Your task to perform on an android device: Open privacy settings Image 0: 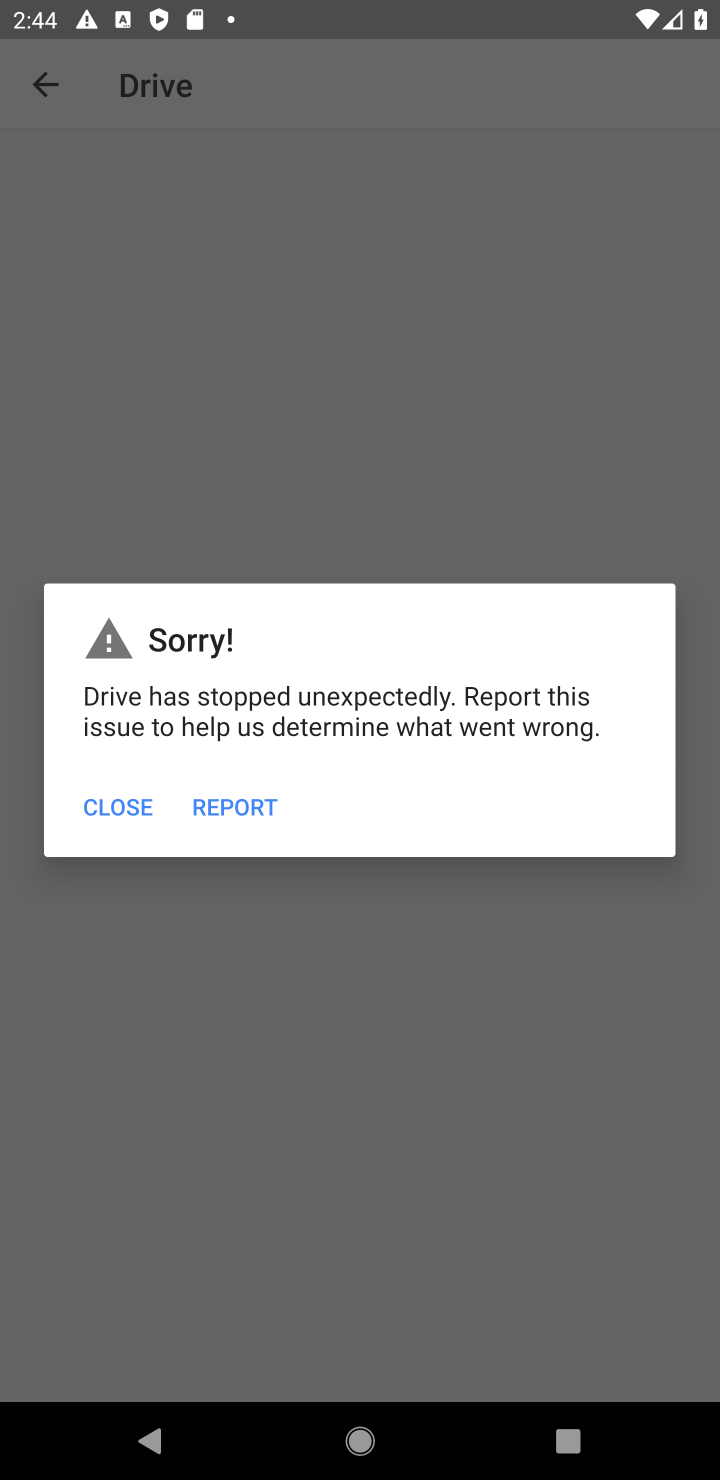
Step 0: press home button
Your task to perform on an android device: Open privacy settings Image 1: 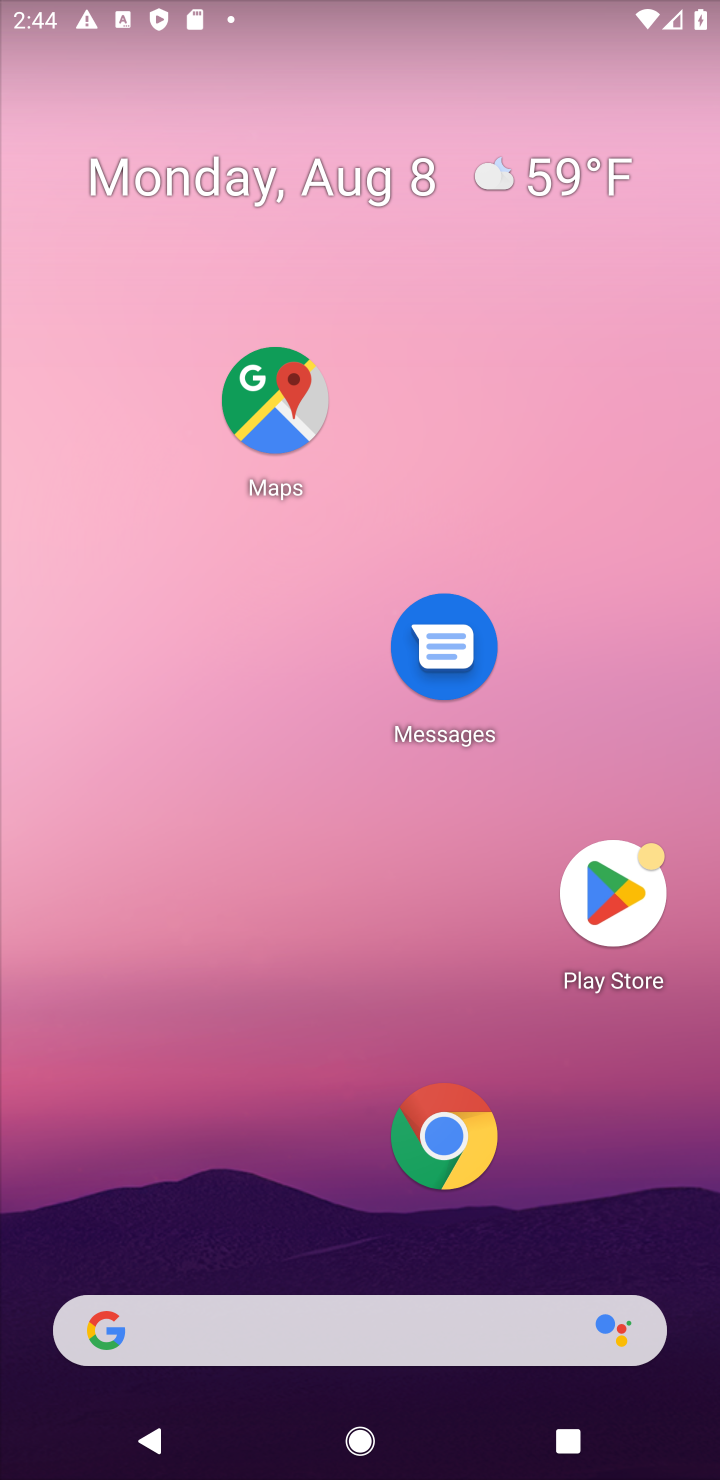
Step 1: drag from (296, 468) to (399, 99)
Your task to perform on an android device: Open privacy settings Image 2: 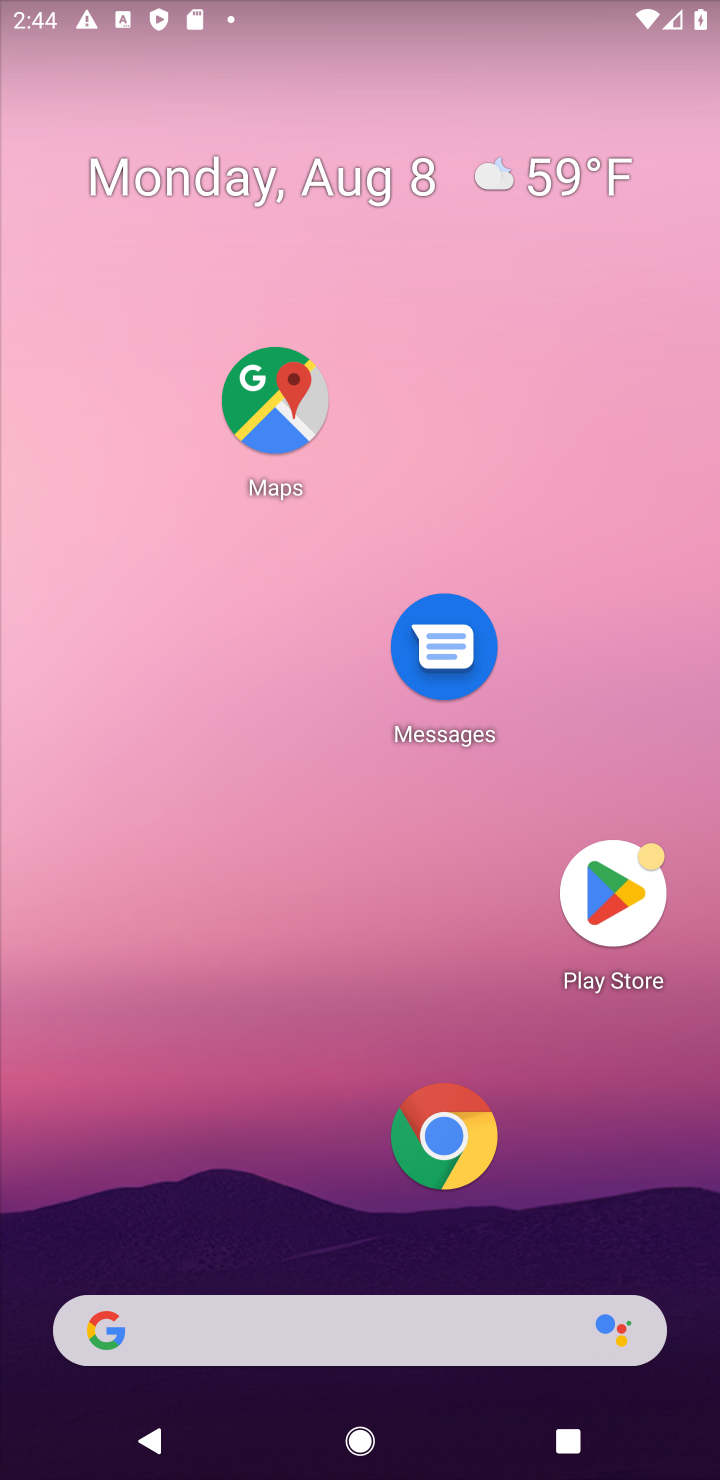
Step 2: drag from (50, 1419) to (283, 387)
Your task to perform on an android device: Open privacy settings Image 3: 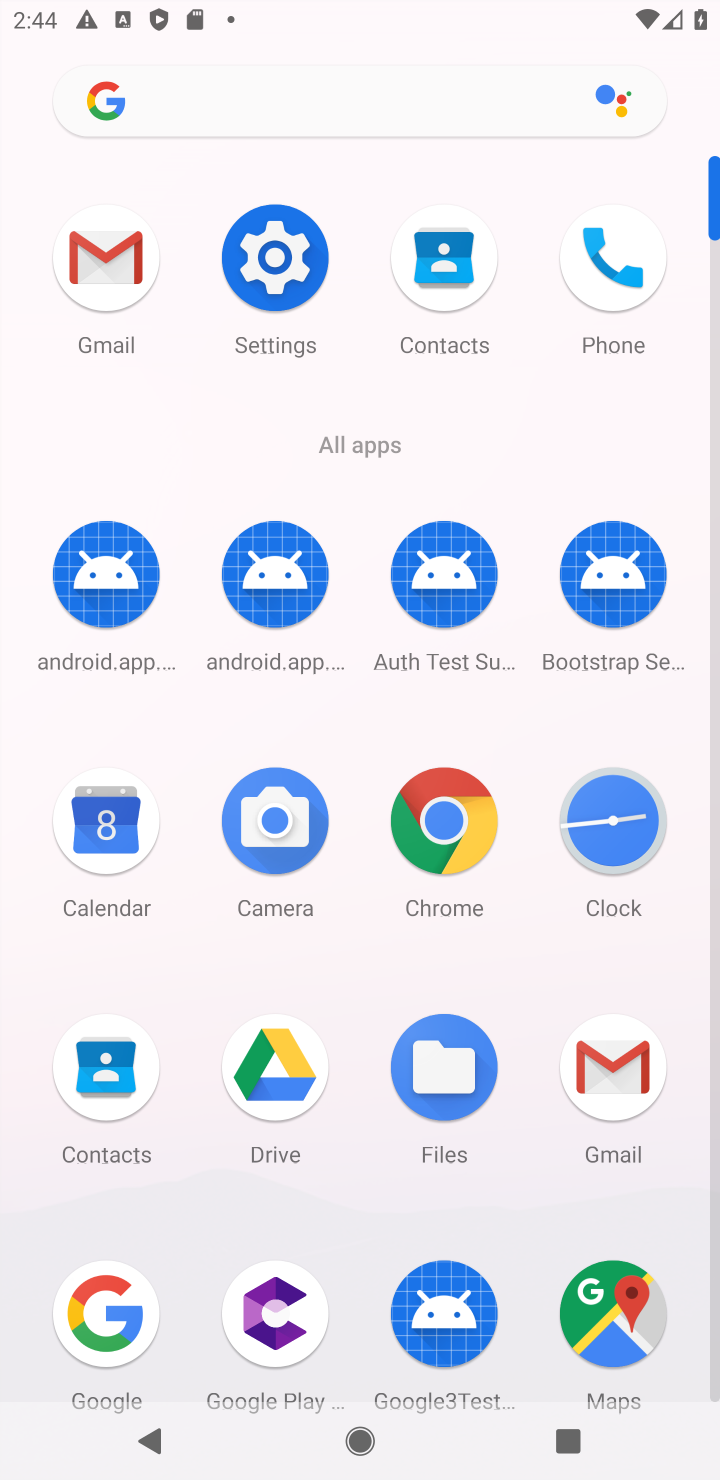
Step 3: click (256, 237)
Your task to perform on an android device: Open privacy settings Image 4: 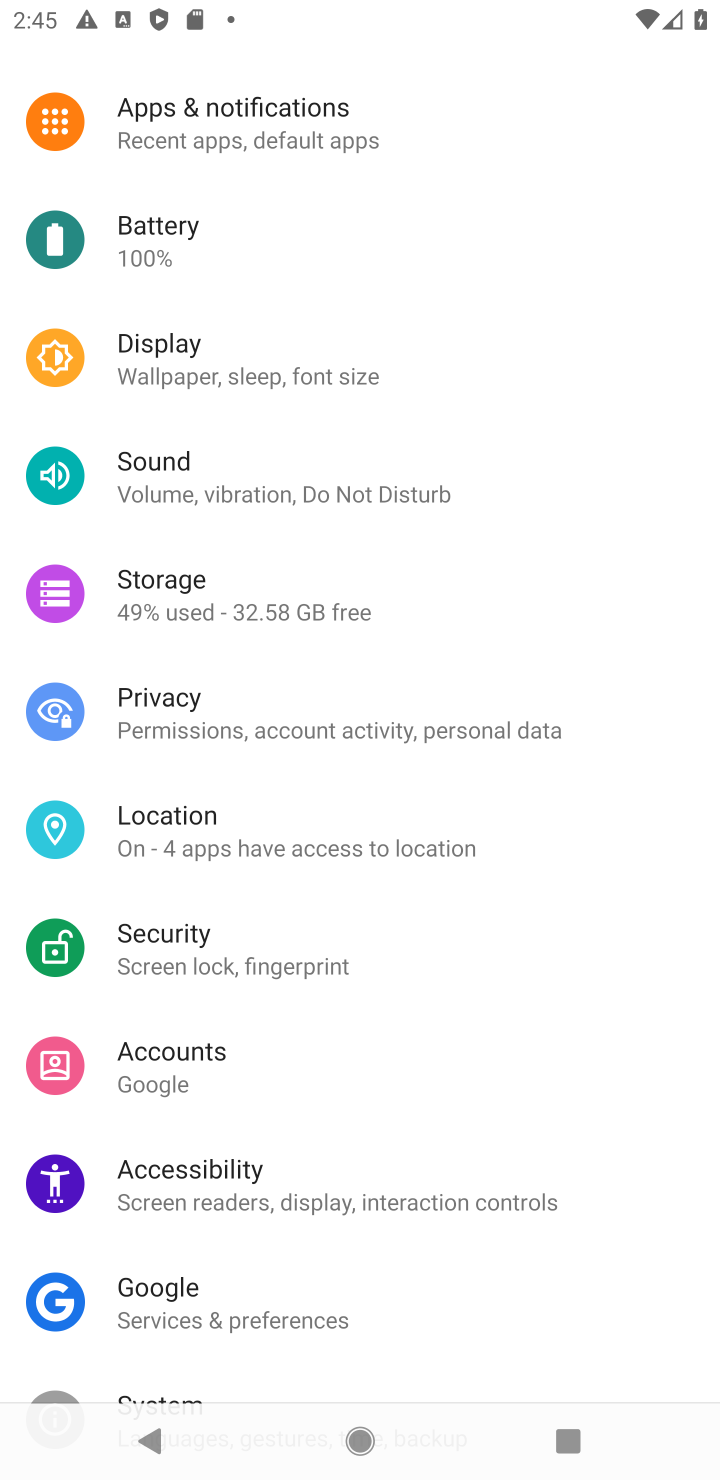
Step 4: click (211, 731)
Your task to perform on an android device: Open privacy settings Image 5: 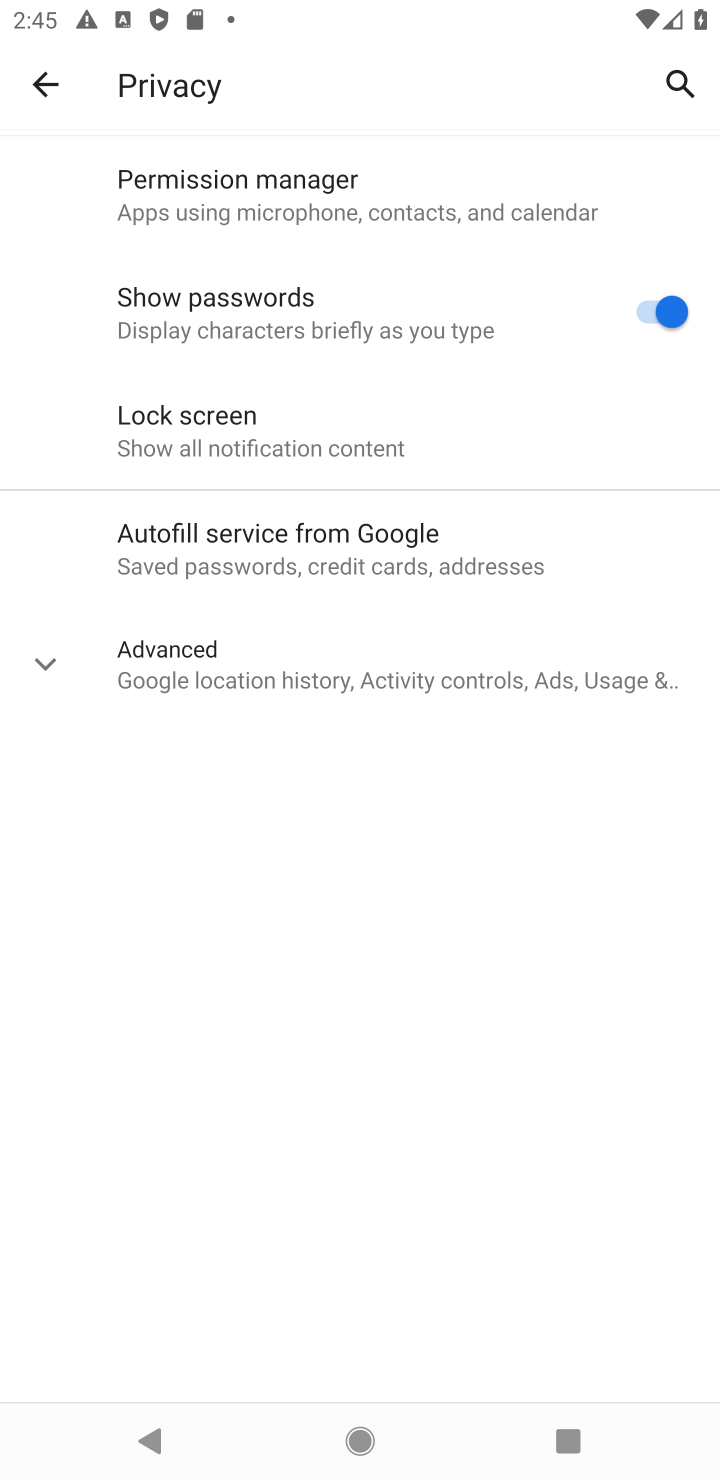
Step 5: task complete